Your task to perform on an android device: find snoozed emails in the gmail app Image 0: 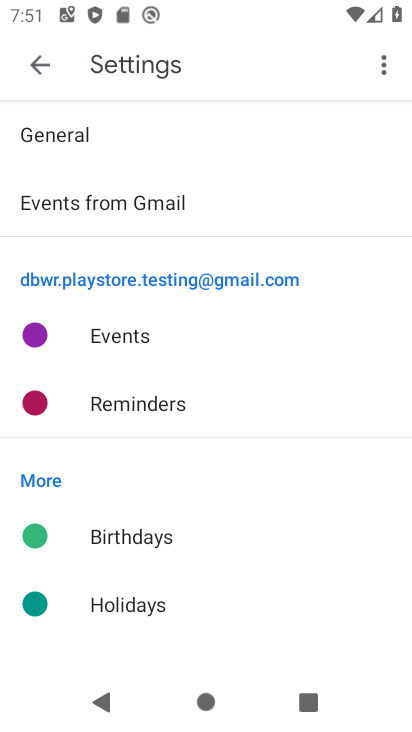
Step 0: press home button
Your task to perform on an android device: find snoozed emails in the gmail app Image 1: 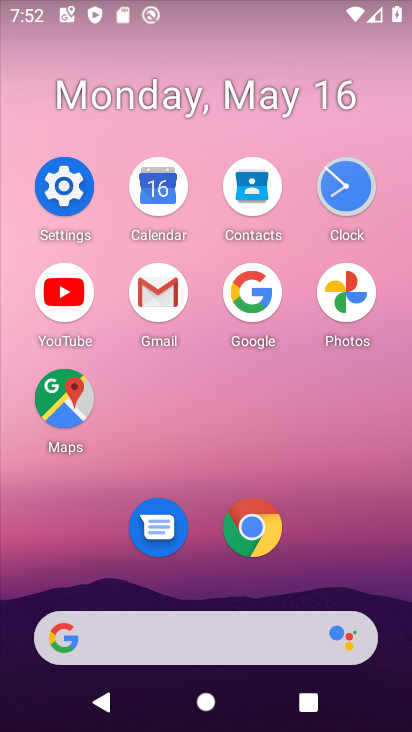
Step 1: click (170, 288)
Your task to perform on an android device: find snoozed emails in the gmail app Image 2: 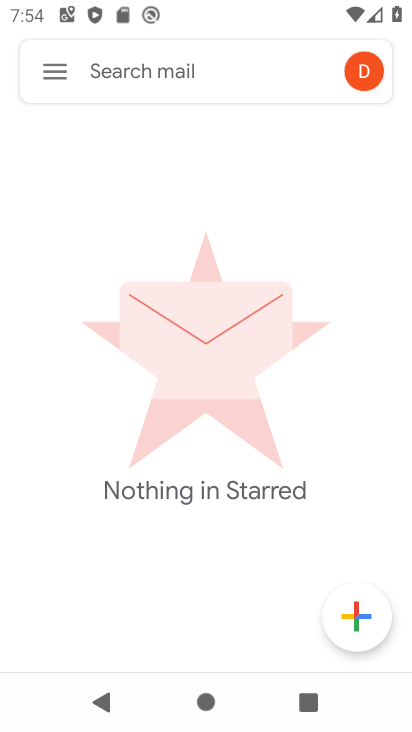
Step 2: click (60, 70)
Your task to perform on an android device: find snoozed emails in the gmail app Image 3: 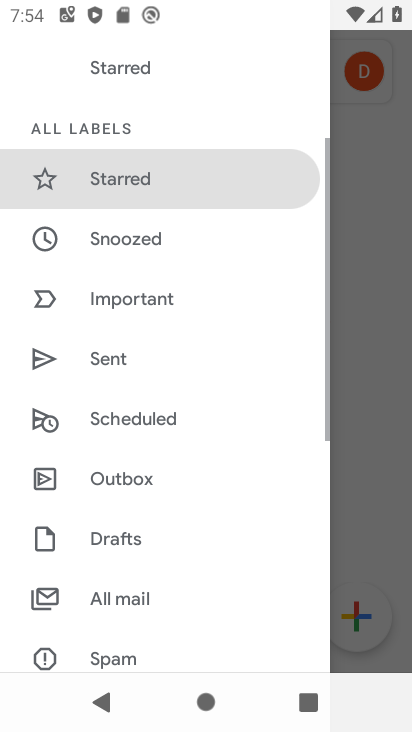
Step 3: drag from (190, 264) to (211, 348)
Your task to perform on an android device: find snoozed emails in the gmail app Image 4: 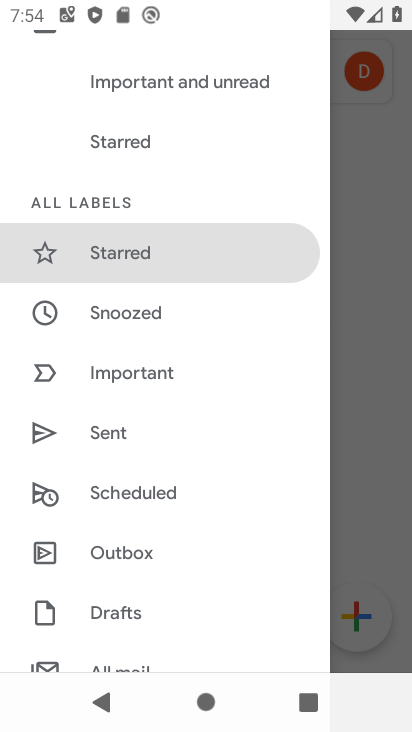
Step 4: click (161, 312)
Your task to perform on an android device: find snoozed emails in the gmail app Image 5: 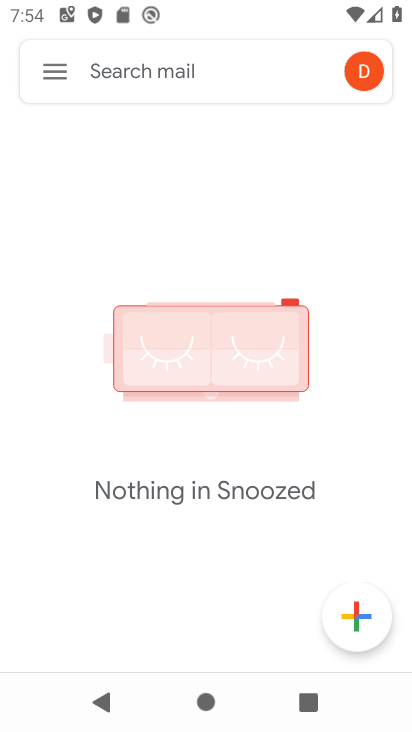
Step 5: task complete